Your task to perform on an android device: open app "Etsy: Buy & Sell Unique Items" (install if not already installed), go to login, and select forgot password Image 0: 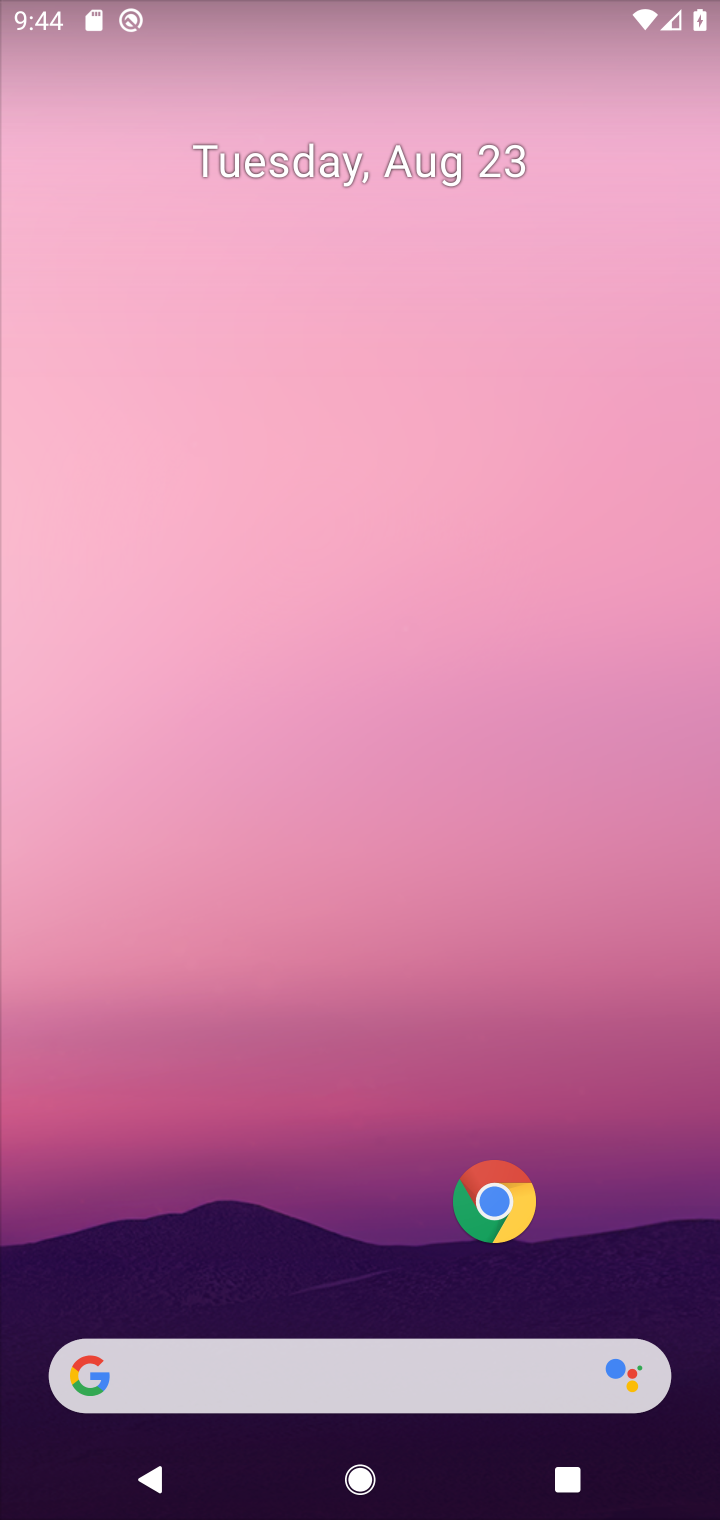
Step 0: drag from (245, 1203) to (244, 403)
Your task to perform on an android device: open app "Etsy: Buy & Sell Unique Items" (install if not already installed), go to login, and select forgot password Image 1: 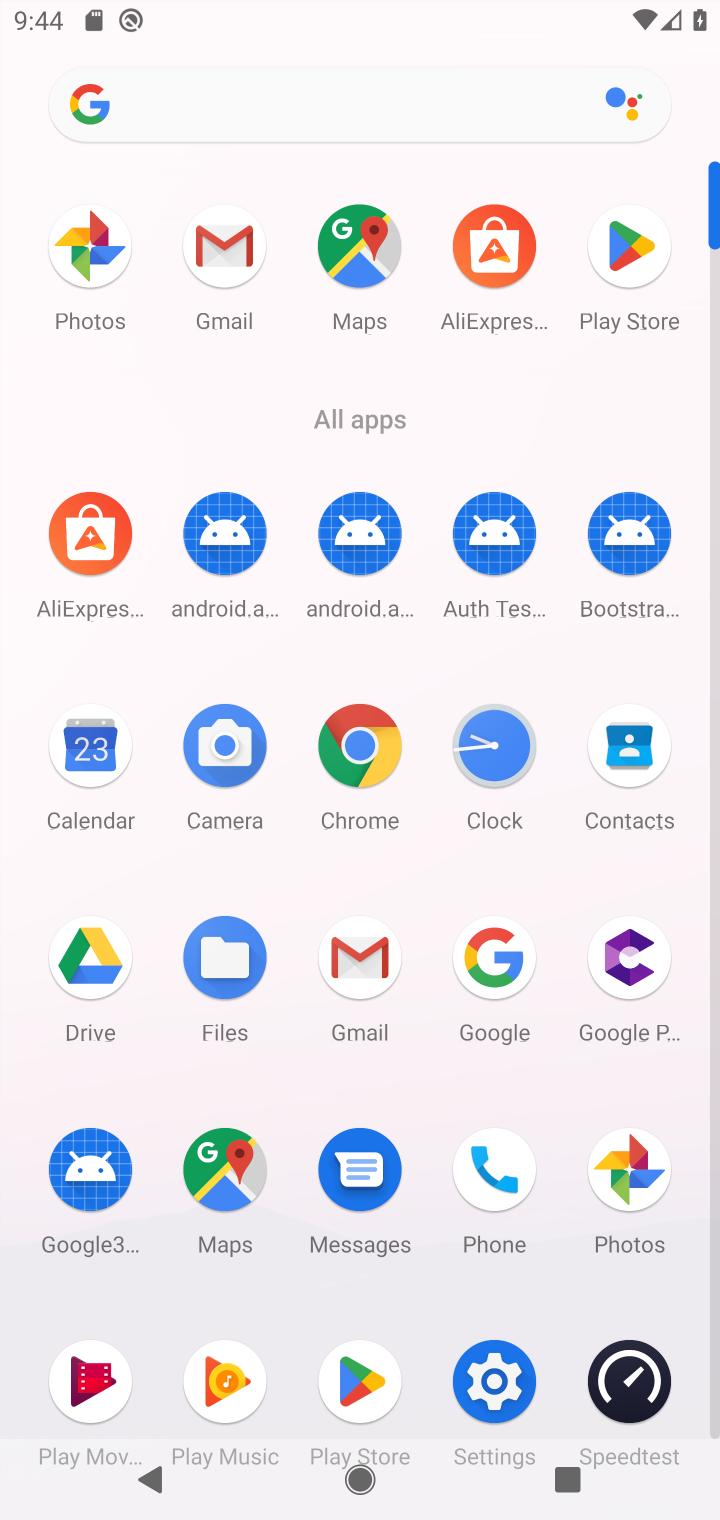
Step 1: click (619, 225)
Your task to perform on an android device: open app "Etsy: Buy & Sell Unique Items" (install if not already installed), go to login, and select forgot password Image 2: 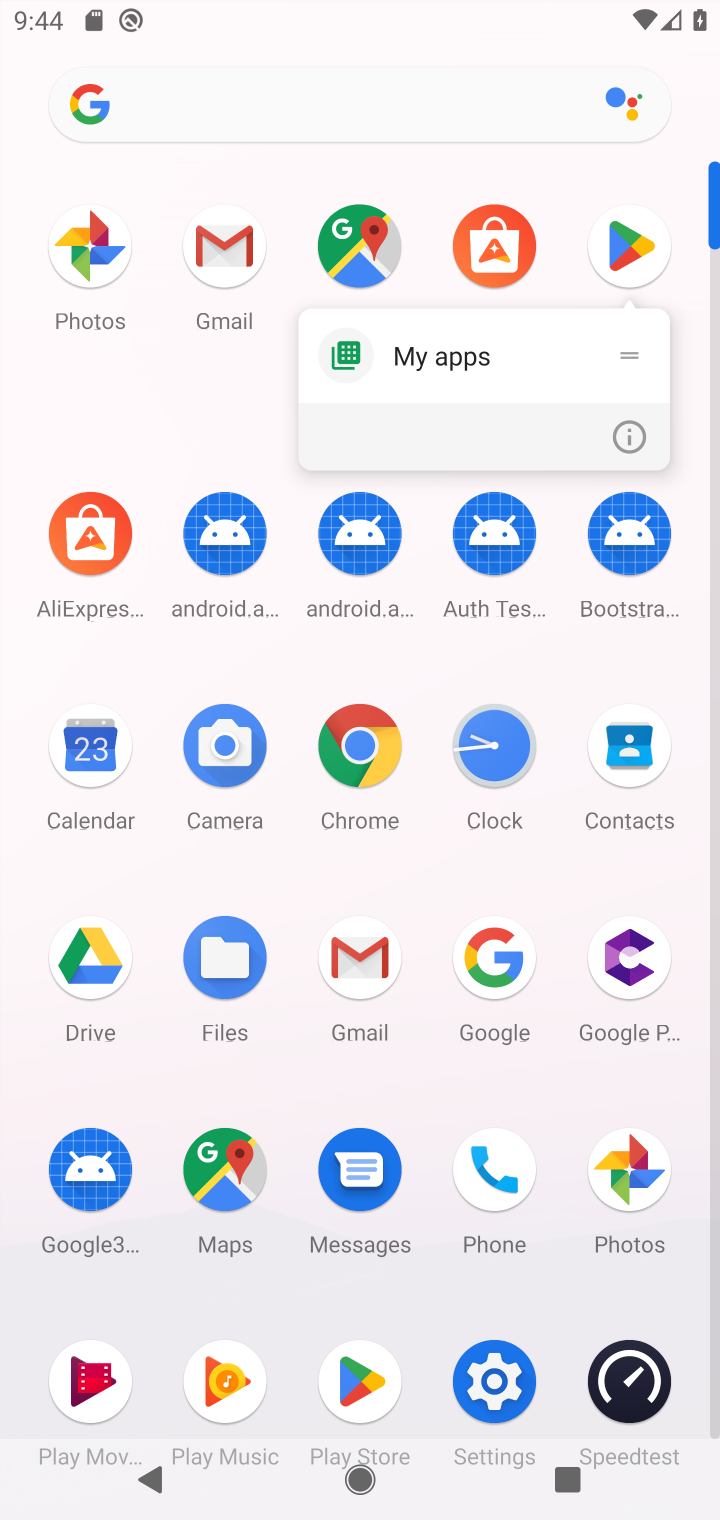
Step 2: click (623, 261)
Your task to perform on an android device: open app "Etsy: Buy & Sell Unique Items" (install if not already installed), go to login, and select forgot password Image 3: 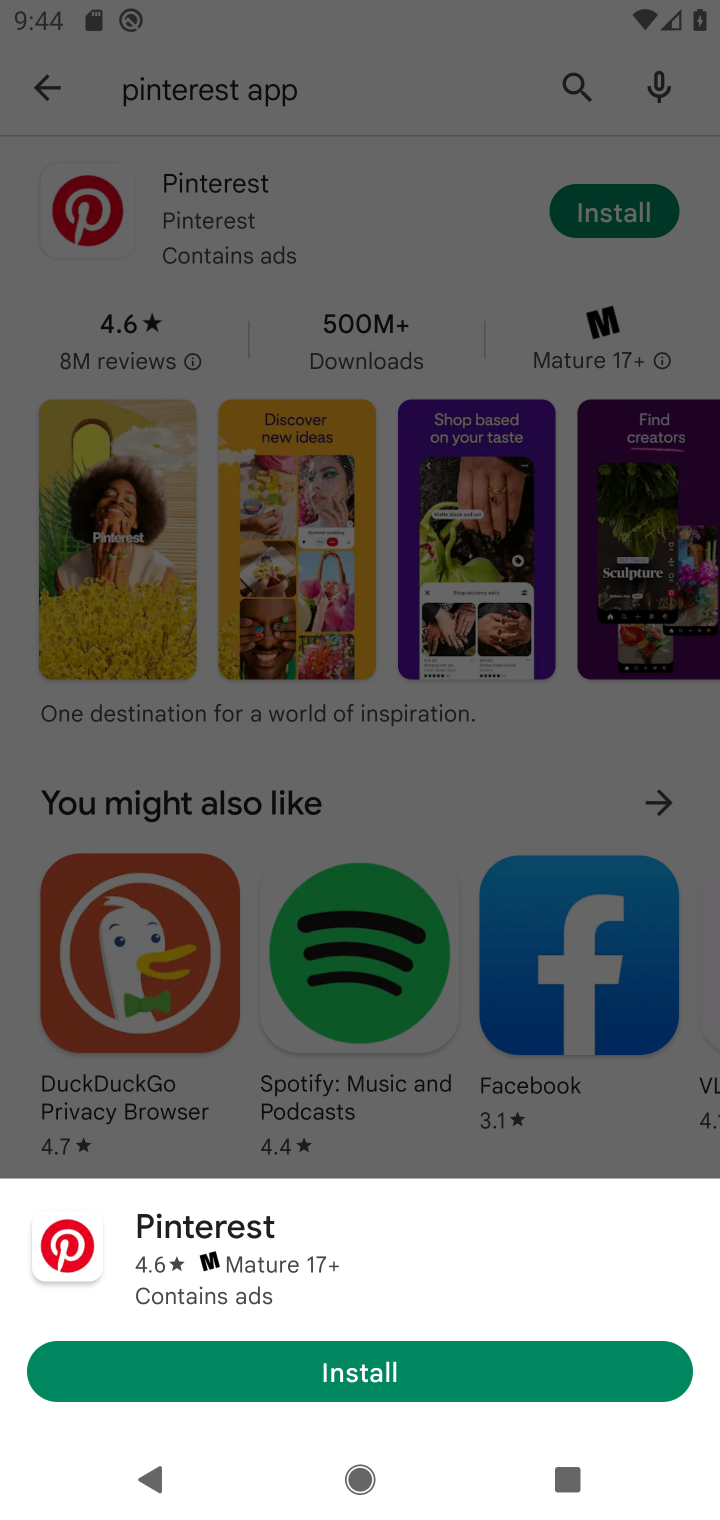
Step 3: click (25, 54)
Your task to perform on an android device: open app "Etsy: Buy & Sell Unique Items" (install if not already installed), go to login, and select forgot password Image 4: 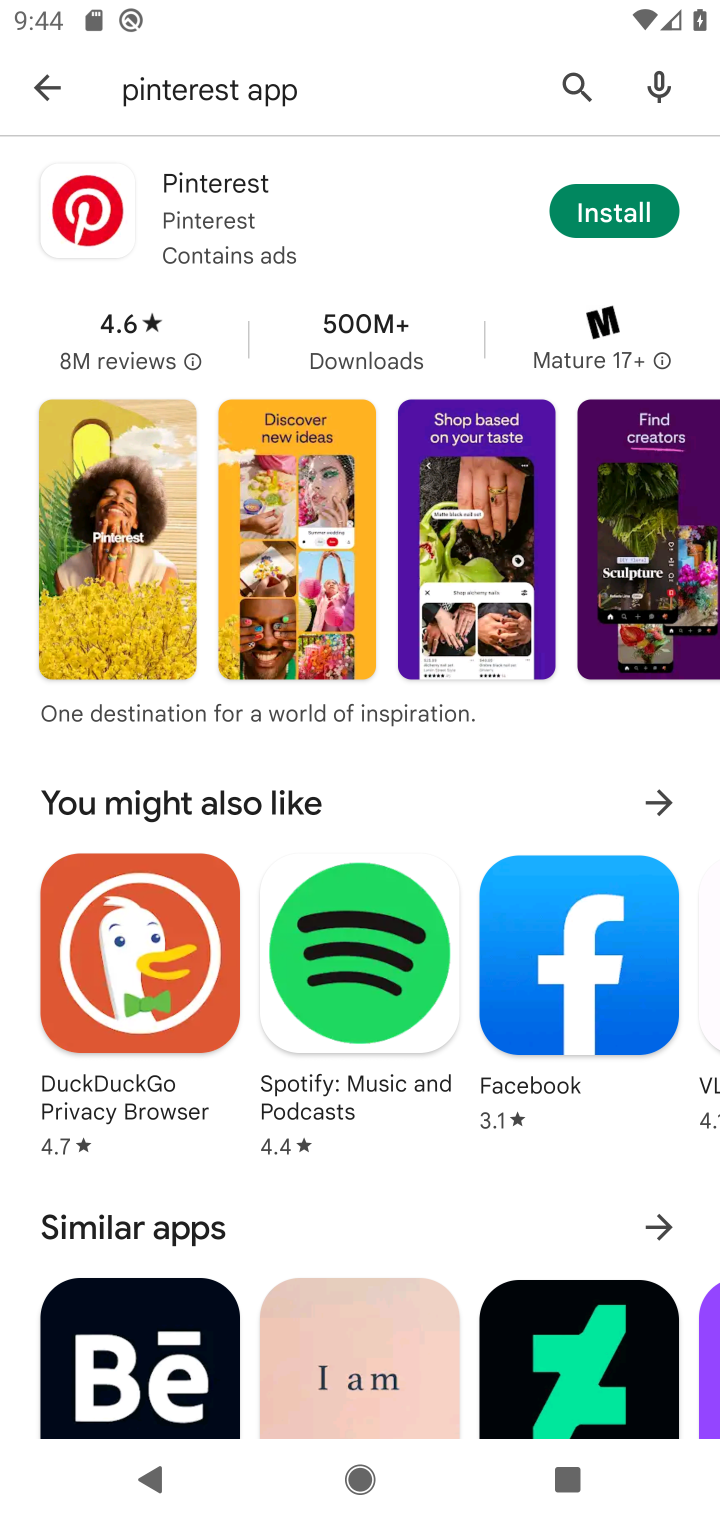
Step 4: click (25, 85)
Your task to perform on an android device: open app "Etsy: Buy & Sell Unique Items" (install if not already installed), go to login, and select forgot password Image 5: 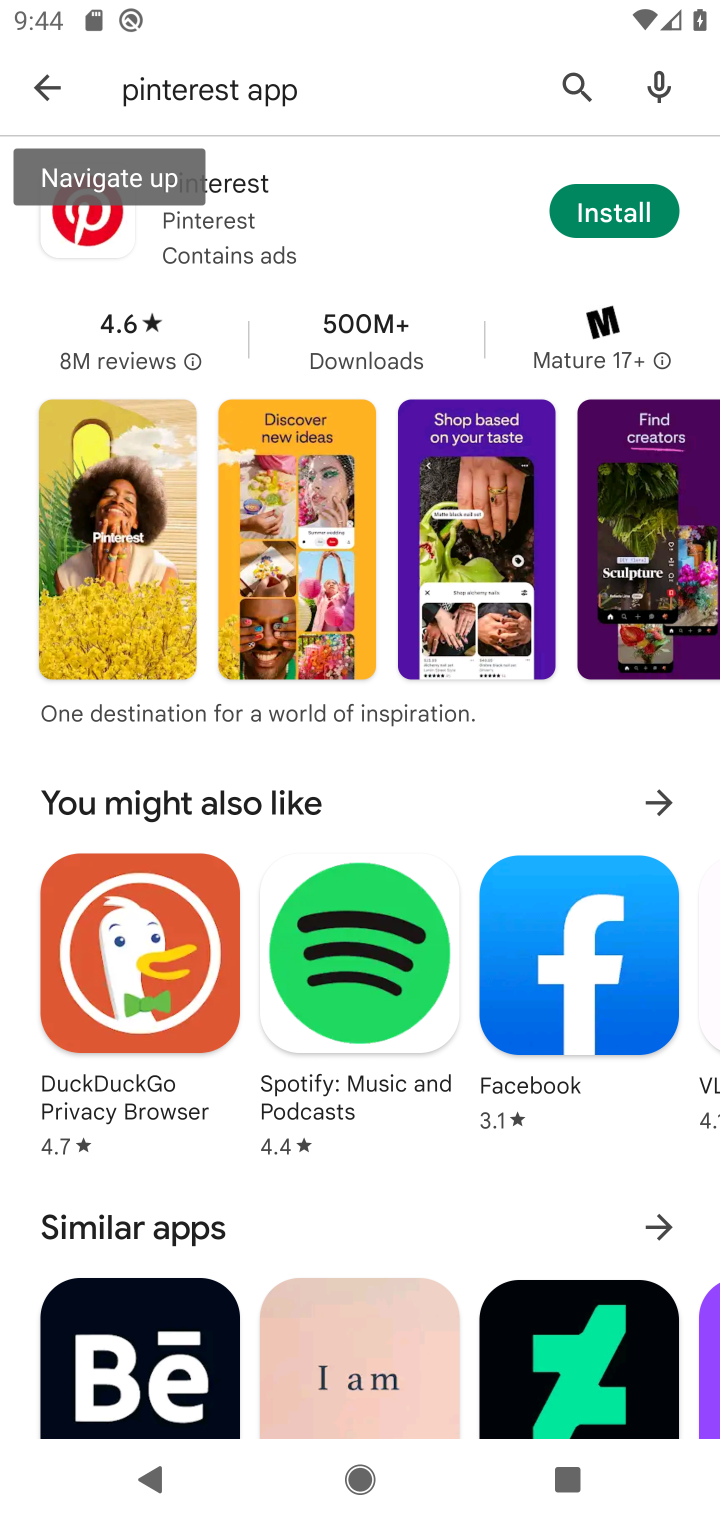
Step 5: click (41, 85)
Your task to perform on an android device: open app "Etsy: Buy & Sell Unique Items" (install if not already installed), go to login, and select forgot password Image 6: 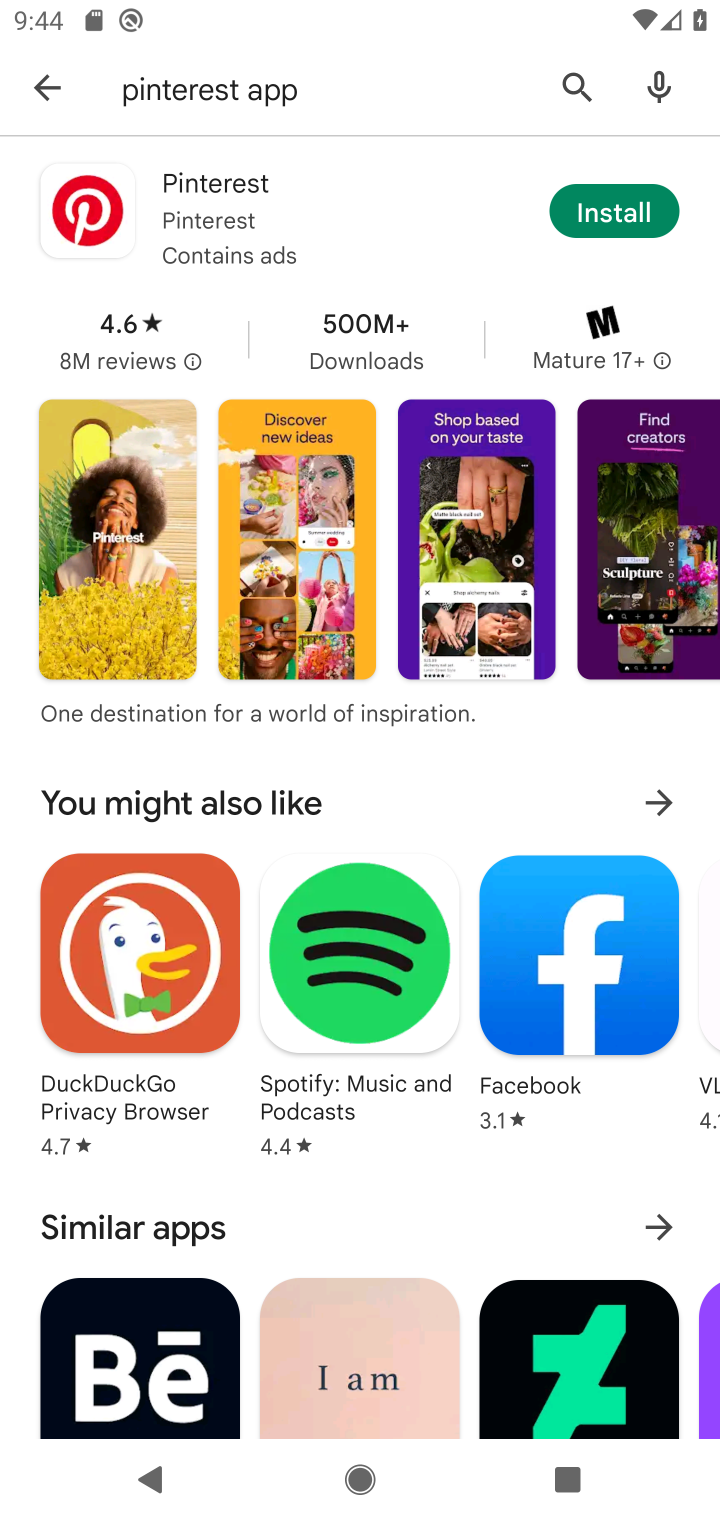
Step 6: click (587, 73)
Your task to perform on an android device: open app "Etsy: Buy & Sell Unique Items" (install if not already installed), go to login, and select forgot password Image 7: 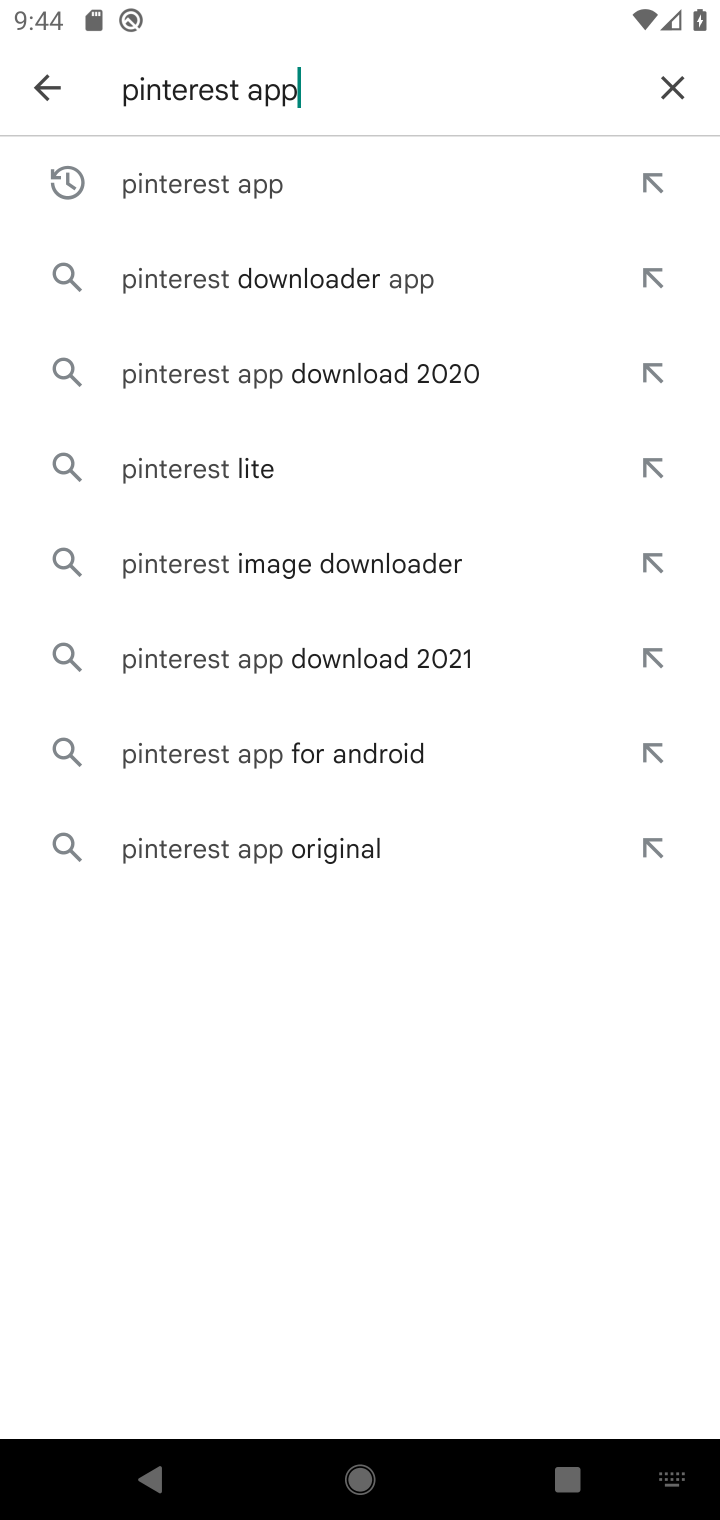
Step 7: click (657, 81)
Your task to perform on an android device: open app "Etsy: Buy & Sell Unique Items" (install if not already installed), go to login, and select forgot password Image 8: 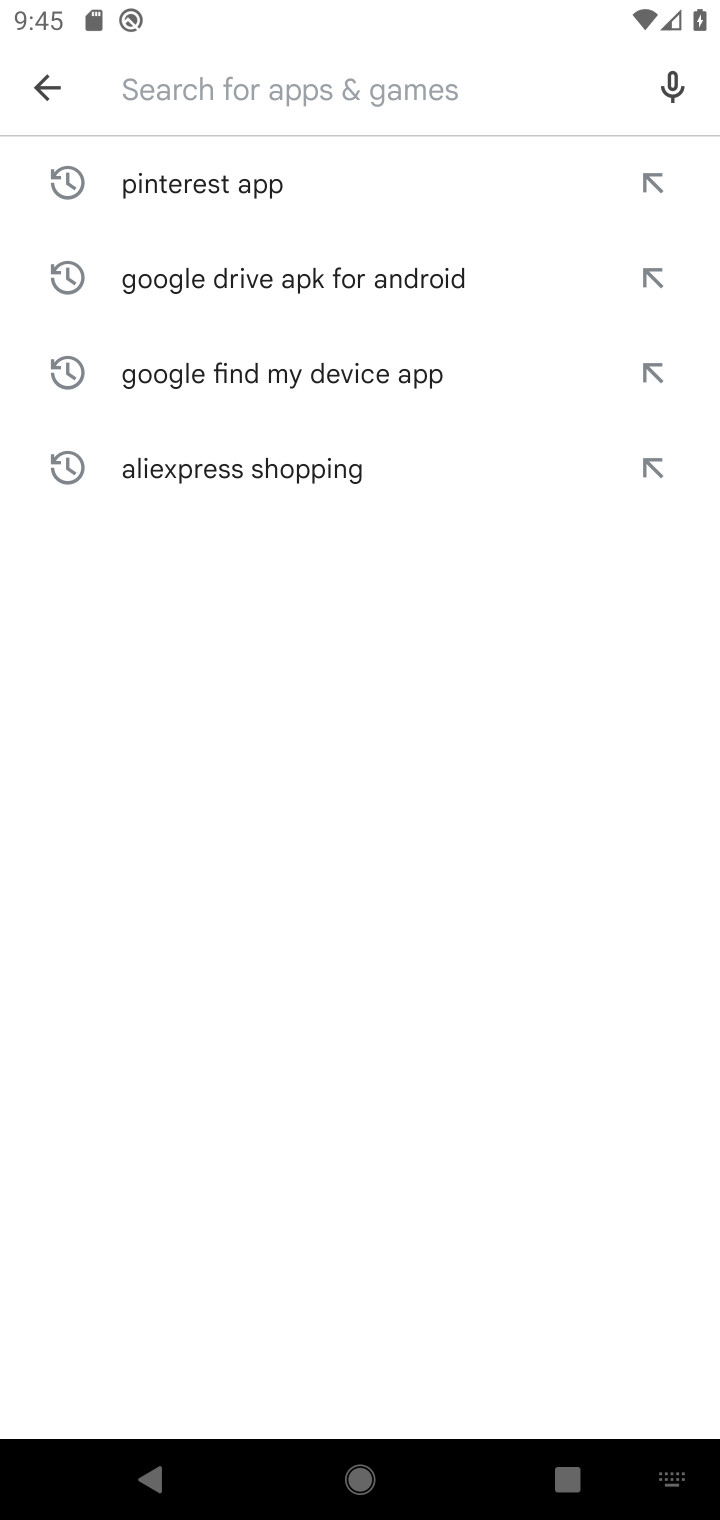
Step 8: click (344, 82)
Your task to perform on an android device: open app "Etsy: Buy & Sell Unique Items" (install if not already installed), go to login, and select forgot password Image 9: 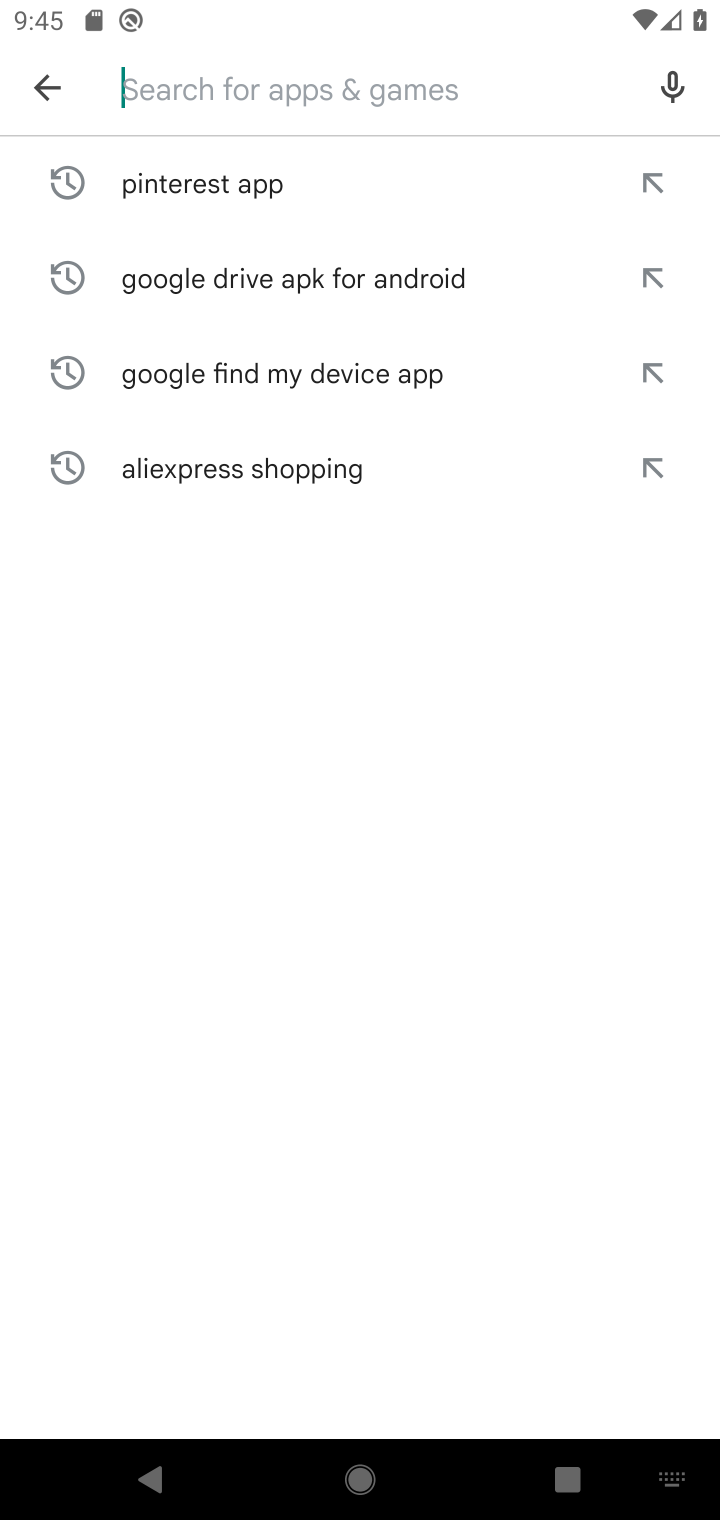
Step 9: type "Etsy: Buy & Sell Unique Items "
Your task to perform on an android device: open app "Etsy: Buy & Sell Unique Items" (install if not already installed), go to login, and select forgot password Image 10: 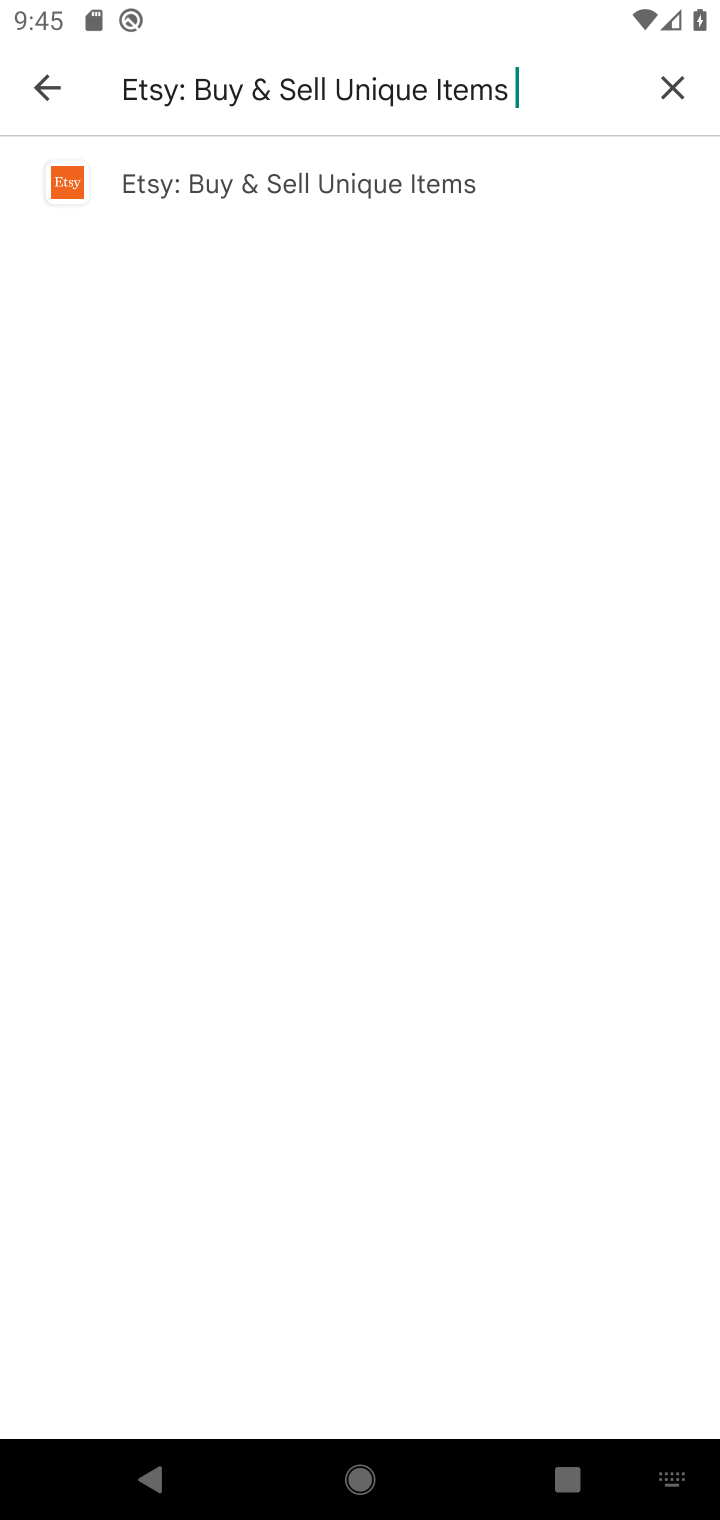
Step 10: click (189, 180)
Your task to perform on an android device: open app "Etsy: Buy & Sell Unique Items" (install if not already installed), go to login, and select forgot password Image 11: 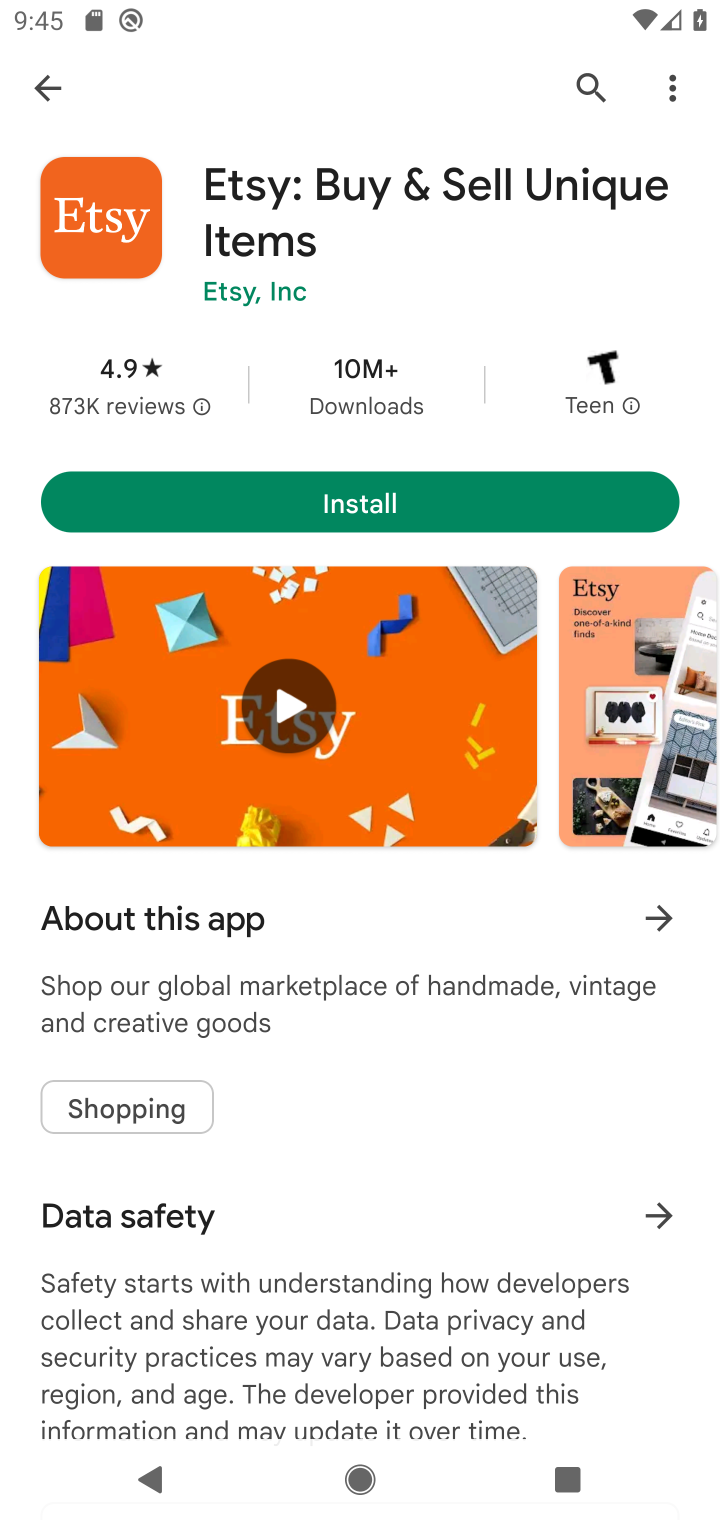
Step 11: click (425, 490)
Your task to perform on an android device: open app "Etsy: Buy & Sell Unique Items" (install if not already installed), go to login, and select forgot password Image 12: 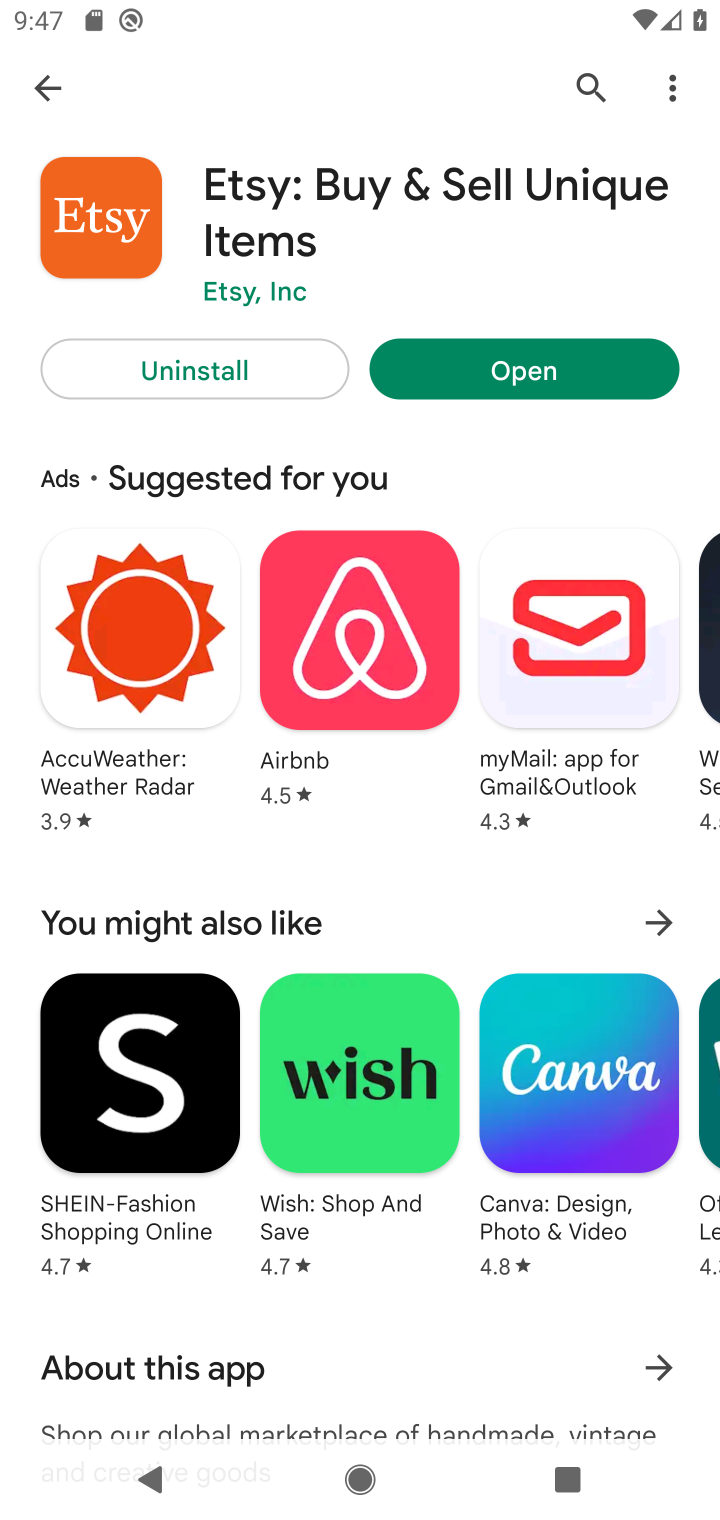
Step 12: click (430, 339)
Your task to perform on an android device: open app "Etsy: Buy & Sell Unique Items" (install if not already installed), go to login, and select forgot password Image 13: 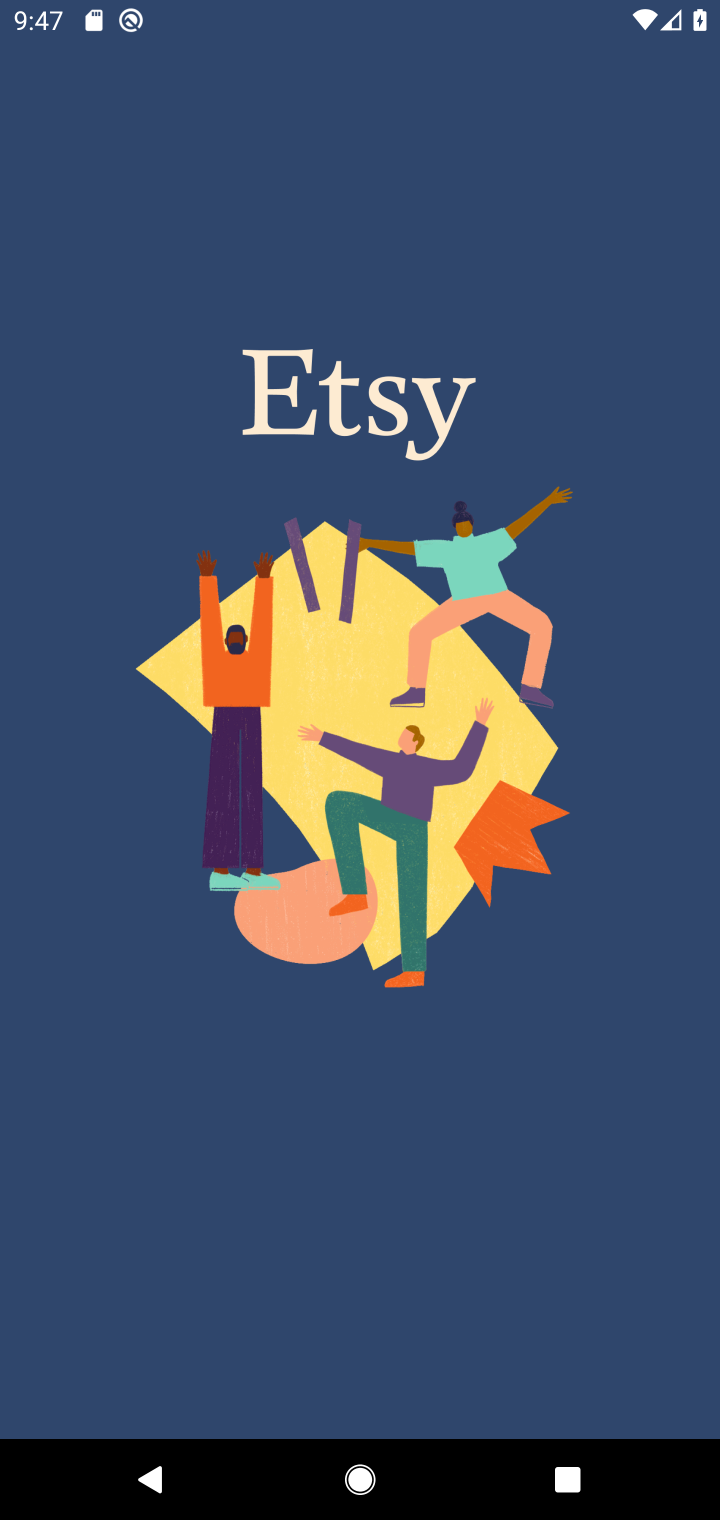
Step 13: task complete